Your task to perform on an android device: turn pop-ups on in chrome Image 0: 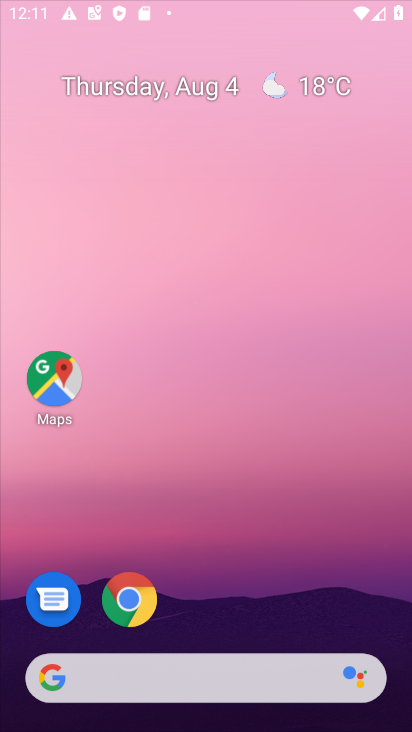
Step 0: press home button
Your task to perform on an android device: turn pop-ups on in chrome Image 1: 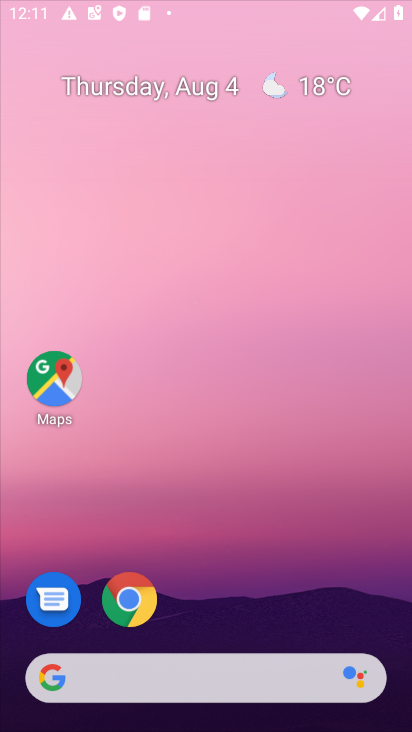
Step 1: click (350, 98)
Your task to perform on an android device: turn pop-ups on in chrome Image 2: 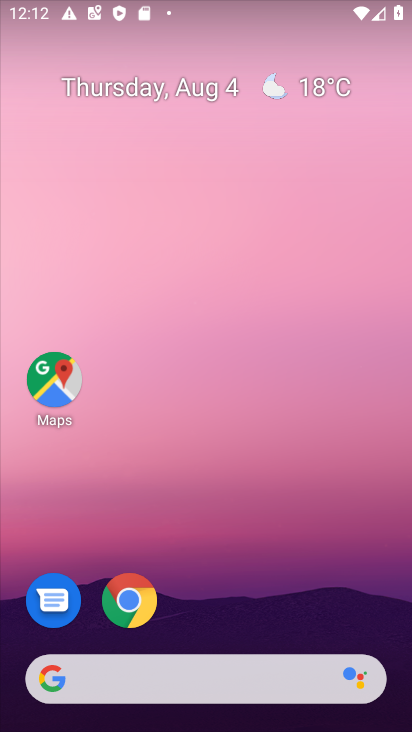
Step 2: click (129, 603)
Your task to perform on an android device: turn pop-ups on in chrome Image 3: 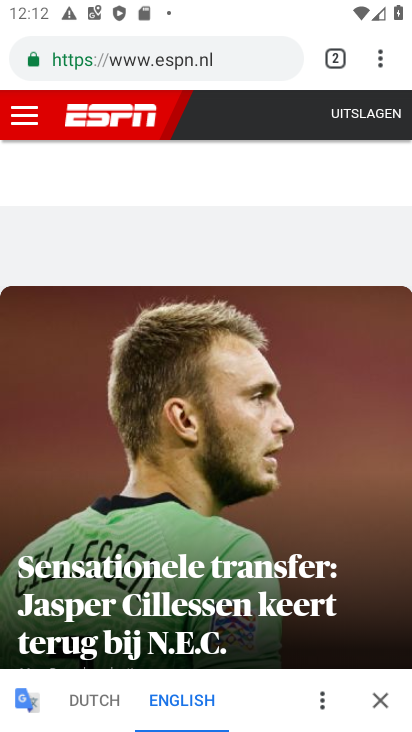
Step 3: drag from (380, 61) to (228, 629)
Your task to perform on an android device: turn pop-ups on in chrome Image 4: 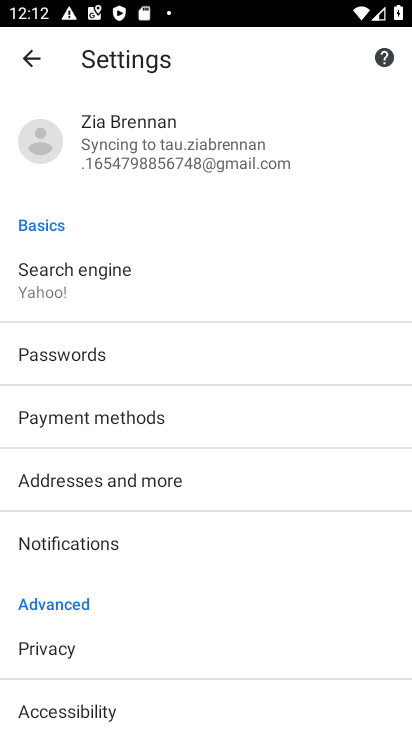
Step 4: drag from (132, 651) to (213, 336)
Your task to perform on an android device: turn pop-ups on in chrome Image 5: 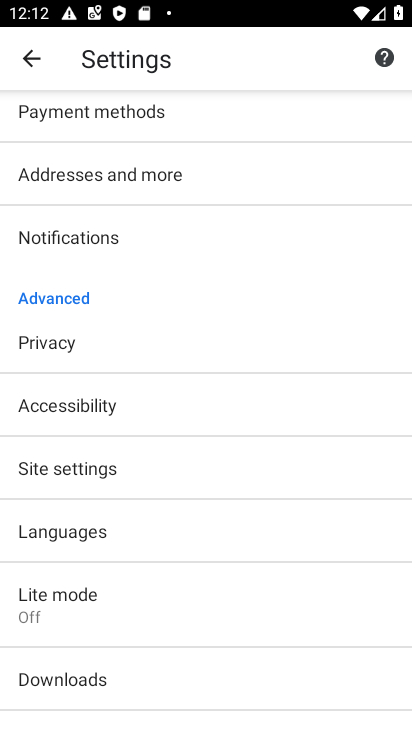
Step 5: click (99, 464)
Your task to perform on an android device: turn pop-ups on in chrome Image 6: 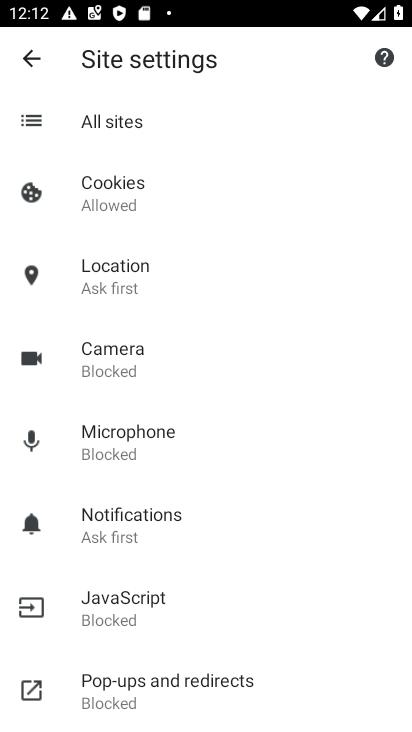
Step 6: click (149, 680)
Your task to perform on an android device: turn pop-ups on in chrome Image 7: 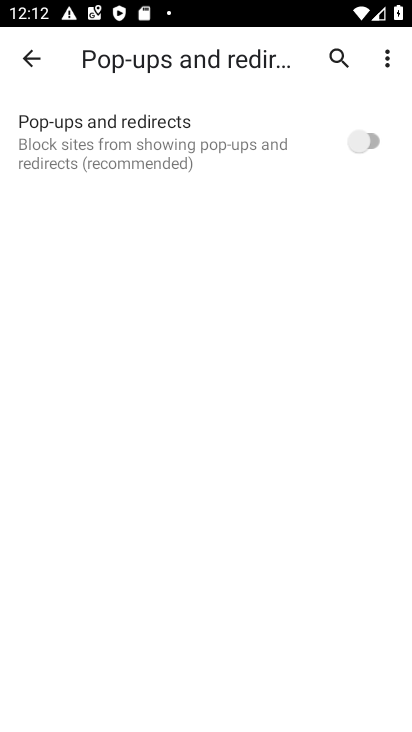
Step 7: click (367, 138)
Your task to perform on an android device: turn pop-ups on in chrome Image 8: 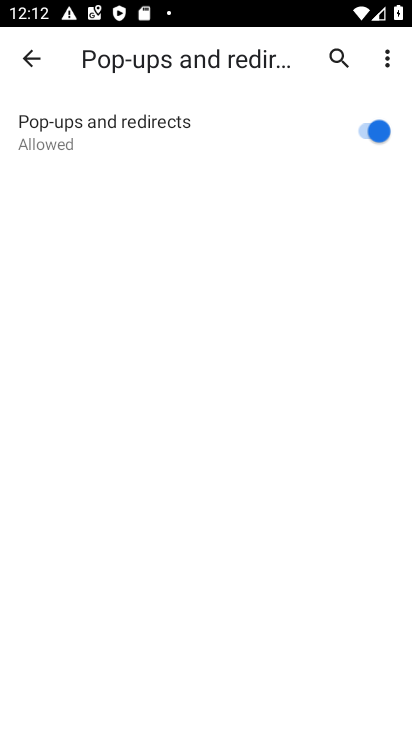
Step 8: task complete